Your task to perform on an android device: Add dell xps to the cart on amazon.com Image 0: 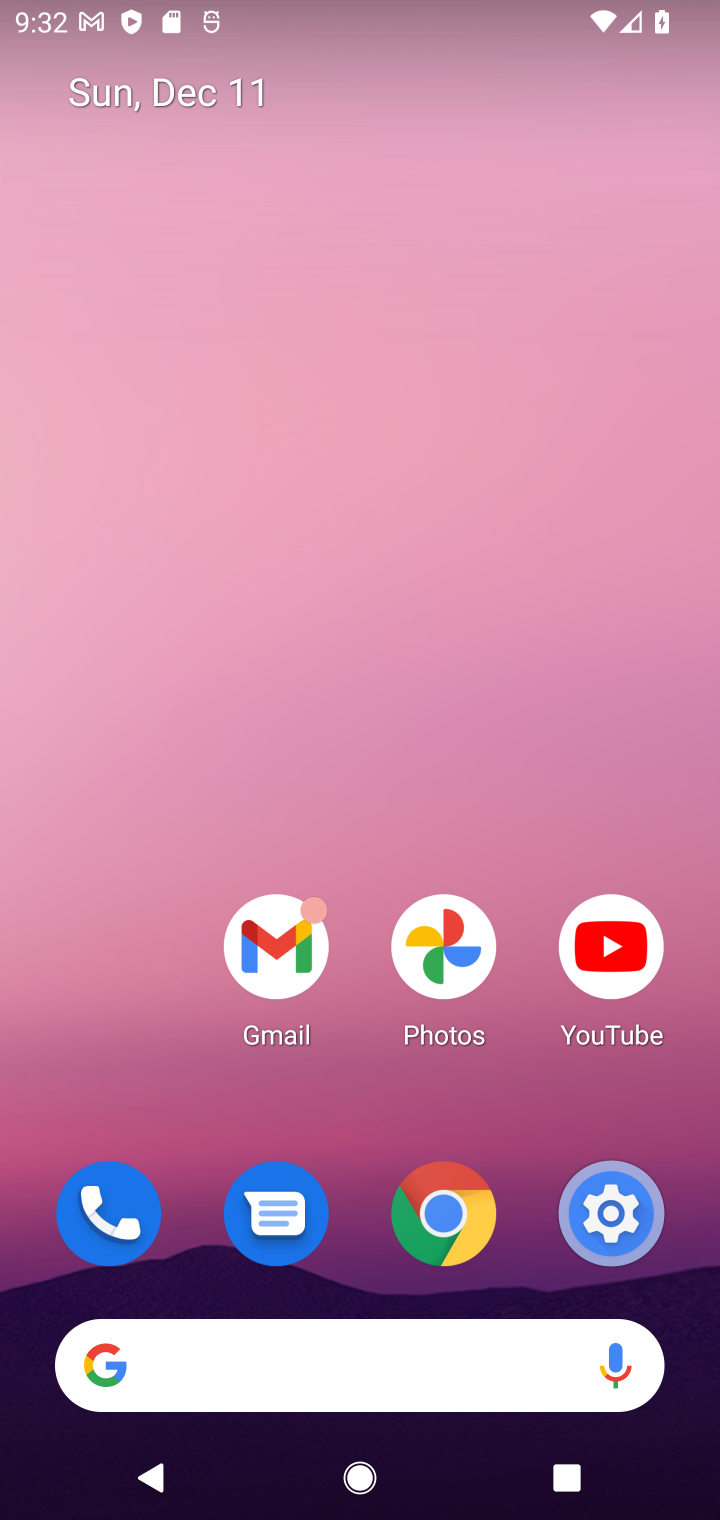
Step 0: click (365, 1385)
Your task to perform on an android device: Add dell xps to the cart on amazon.com Image 1: 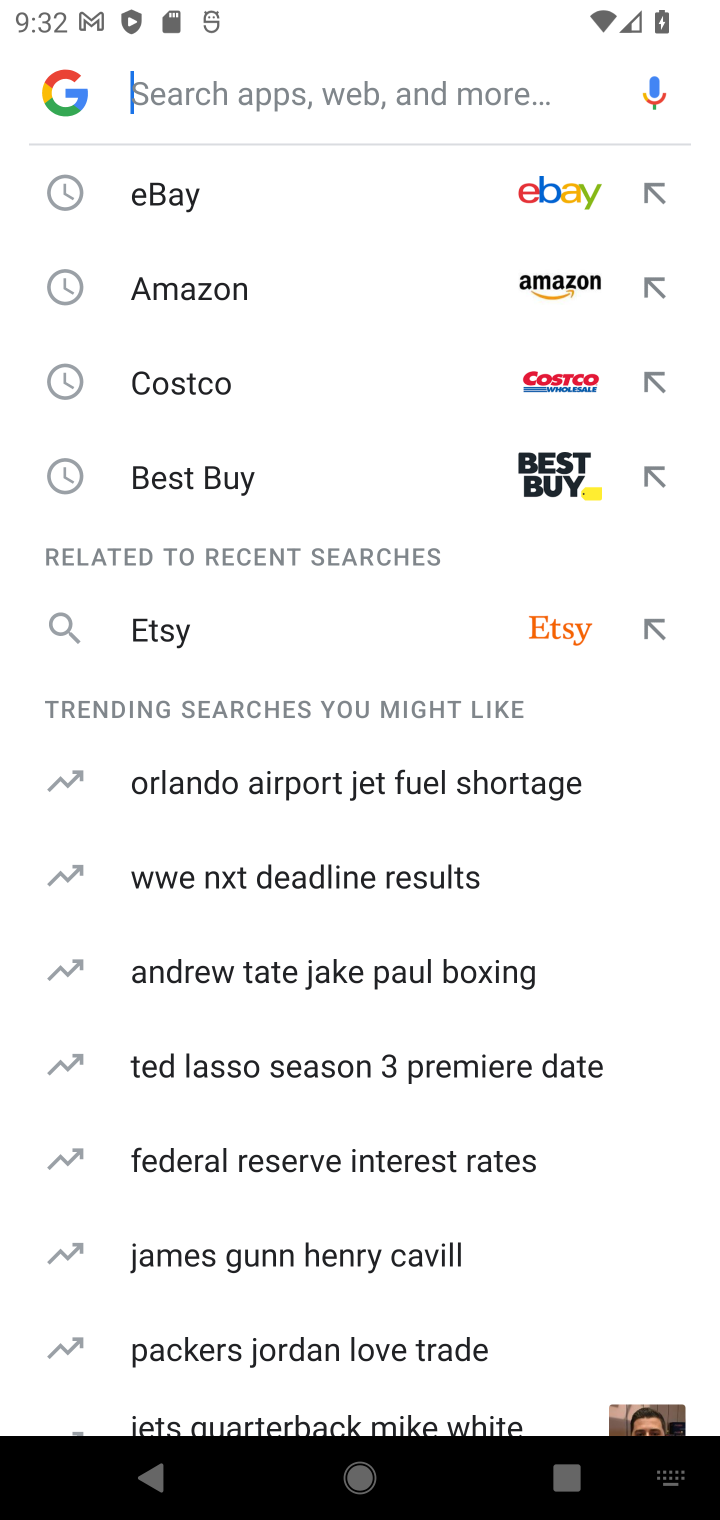
Step 1: type "amazon"
Your task to perform on an android device: Add dell xps to the cart on amazon.com Image 2: 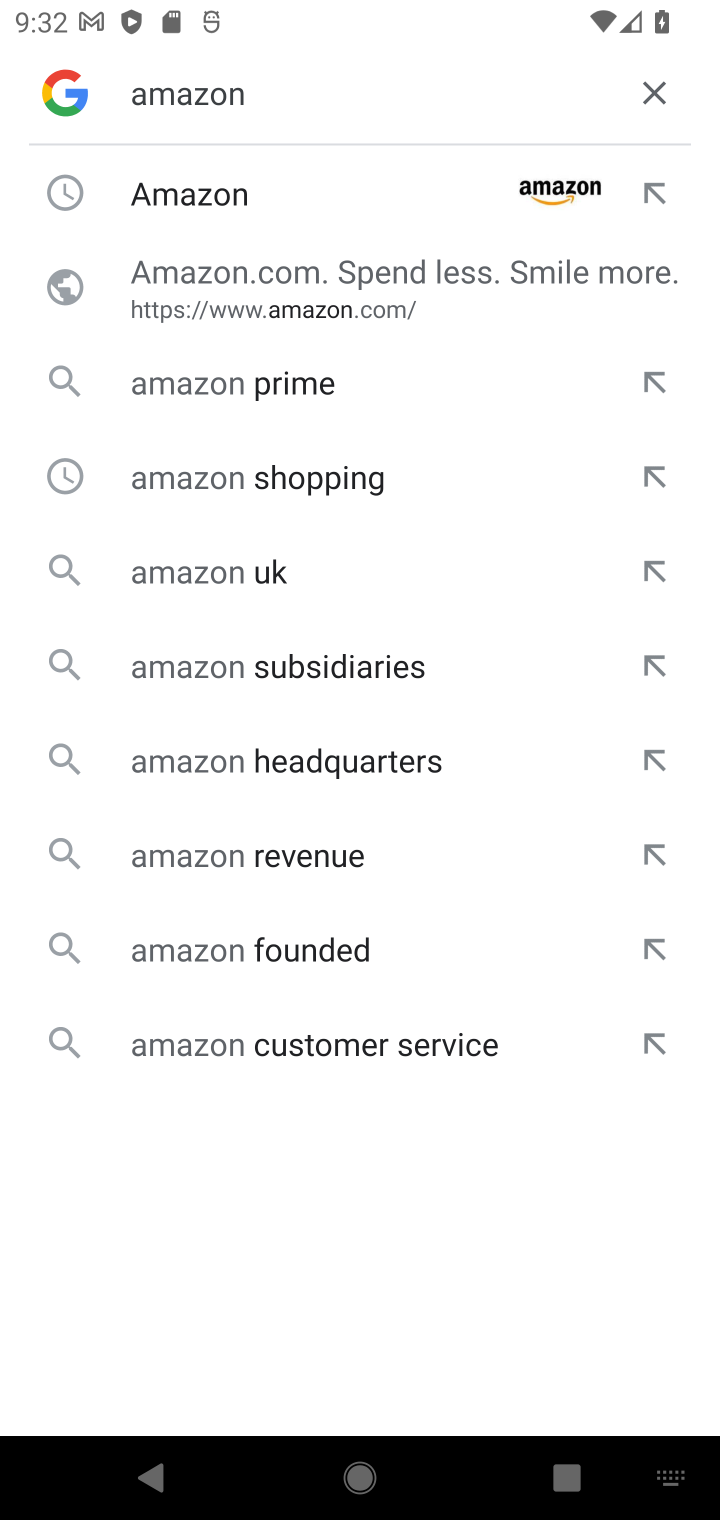
Step 2: click (344, 225)
Your task to perform on an android device: Add dell xps to the cart on amazon.com Image 3: 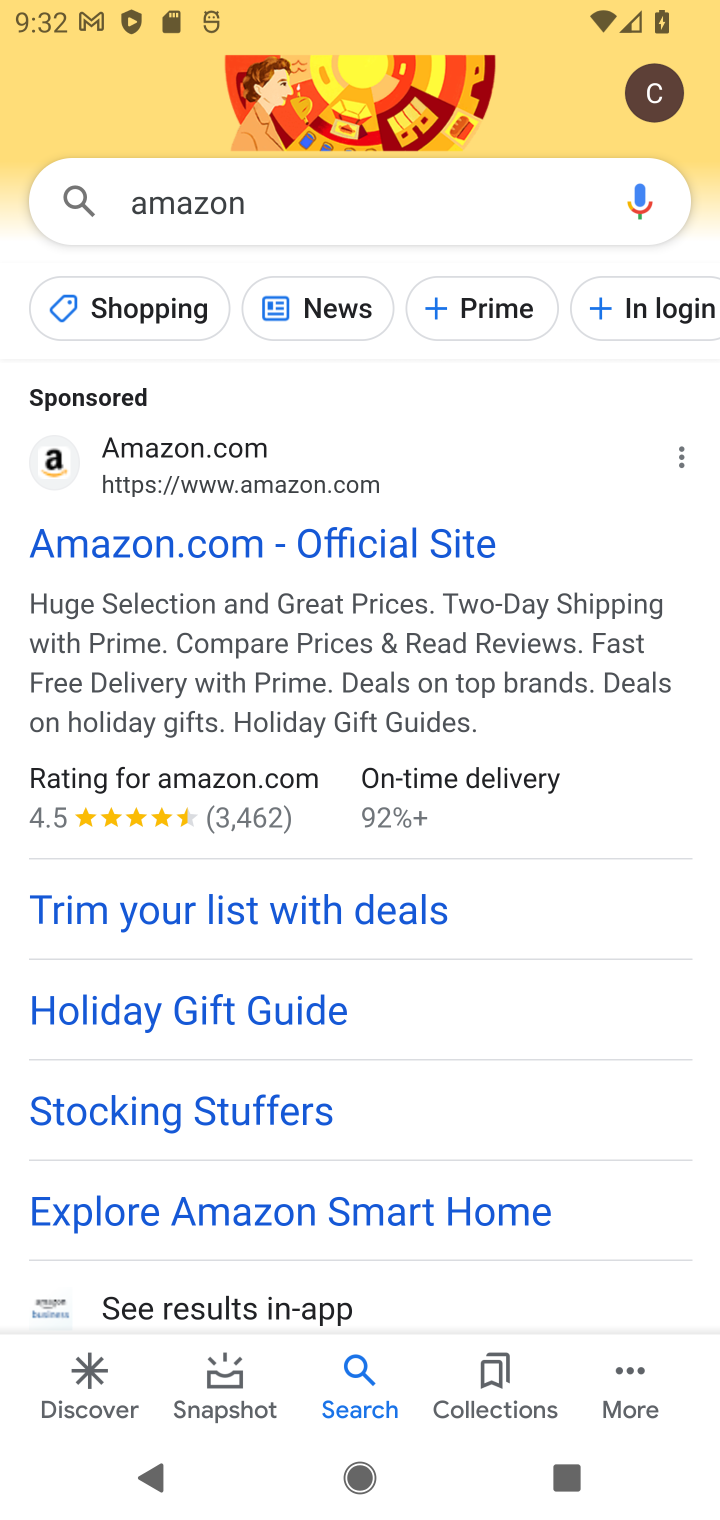
Step 3: click (307, 550)
Your task to perform on an android device: Add dell xps to the cart on amazon.com Image 4: 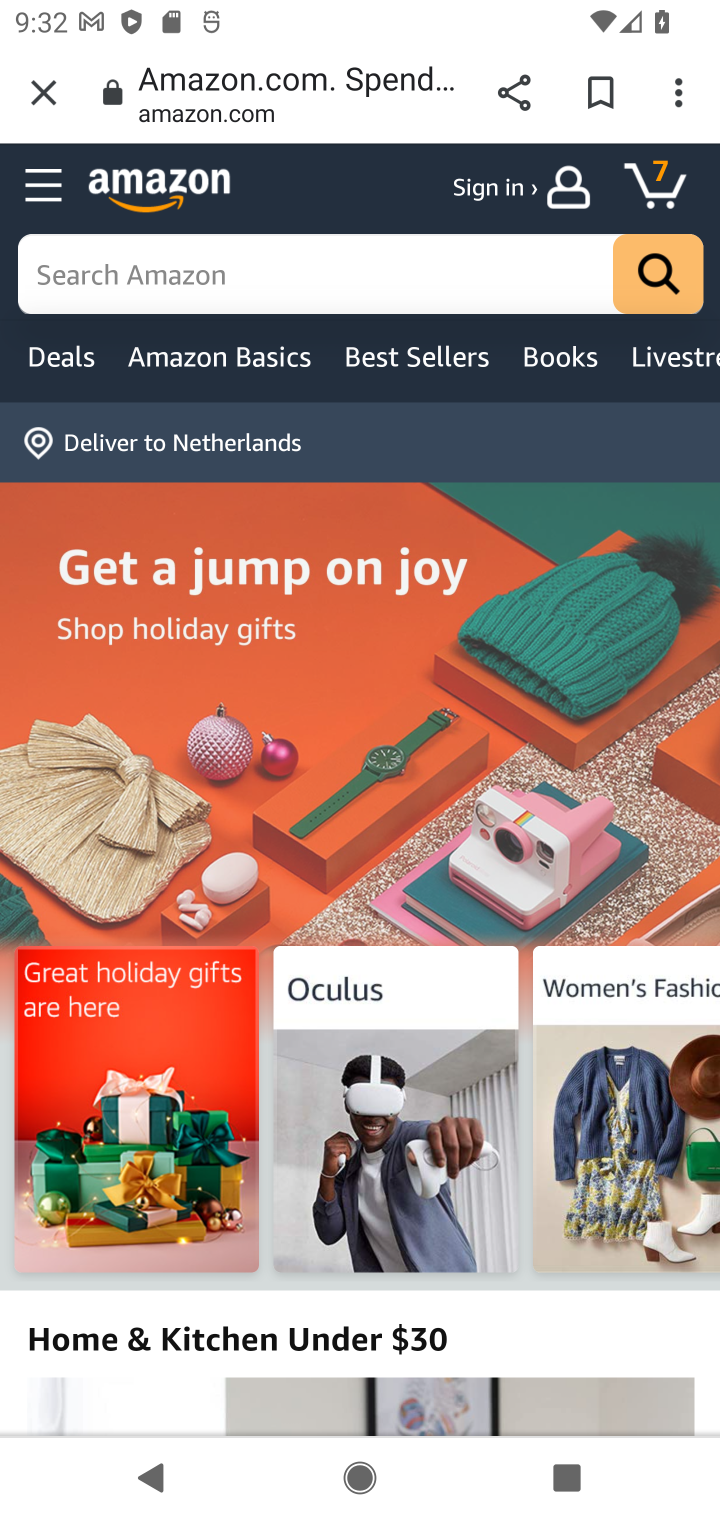
Step 4: click (121, 262)
Your task to perform on an android device: Add dell xps to the cart on amazon.com Image 5: 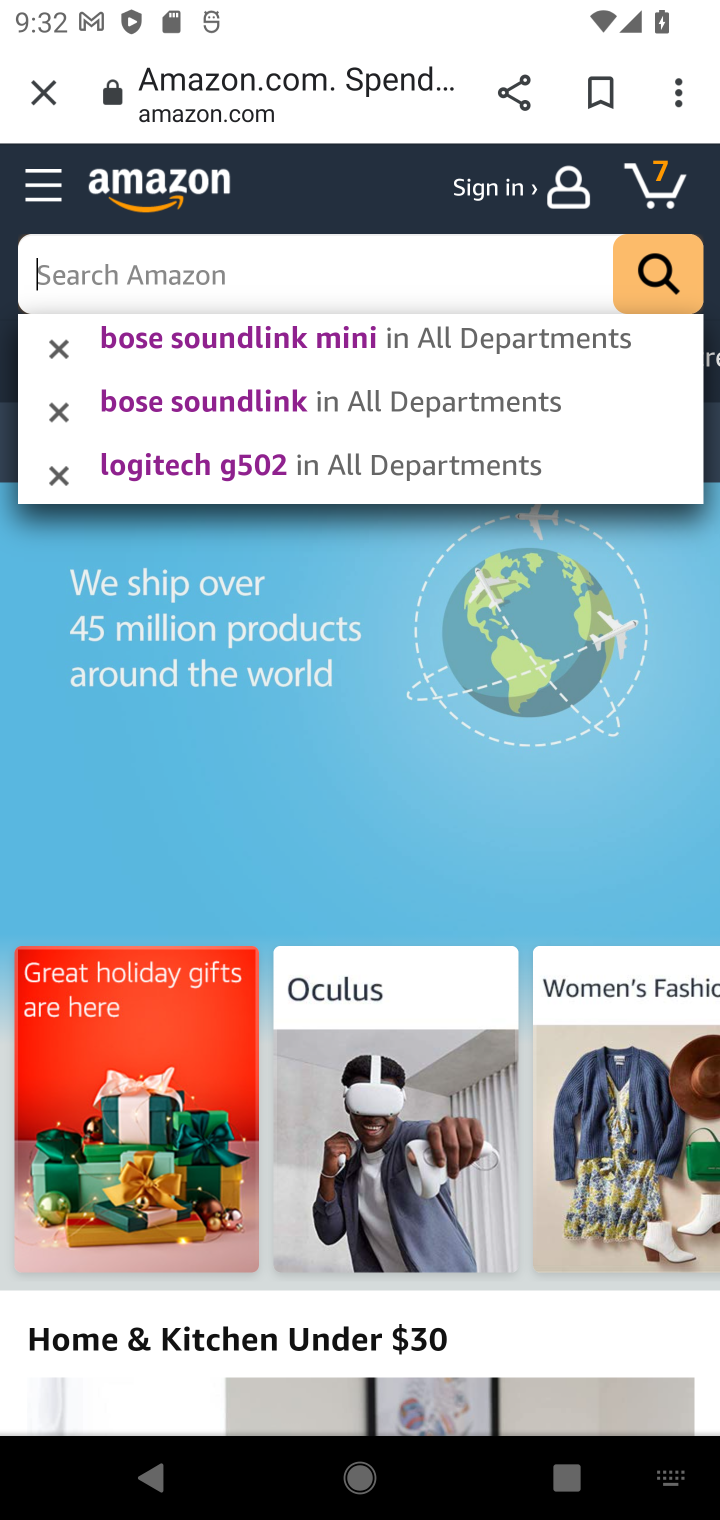
Step 5: type "dell xps"
Your task to perform on an android device: Add dell xps to the cart on amazon.com Image 6: 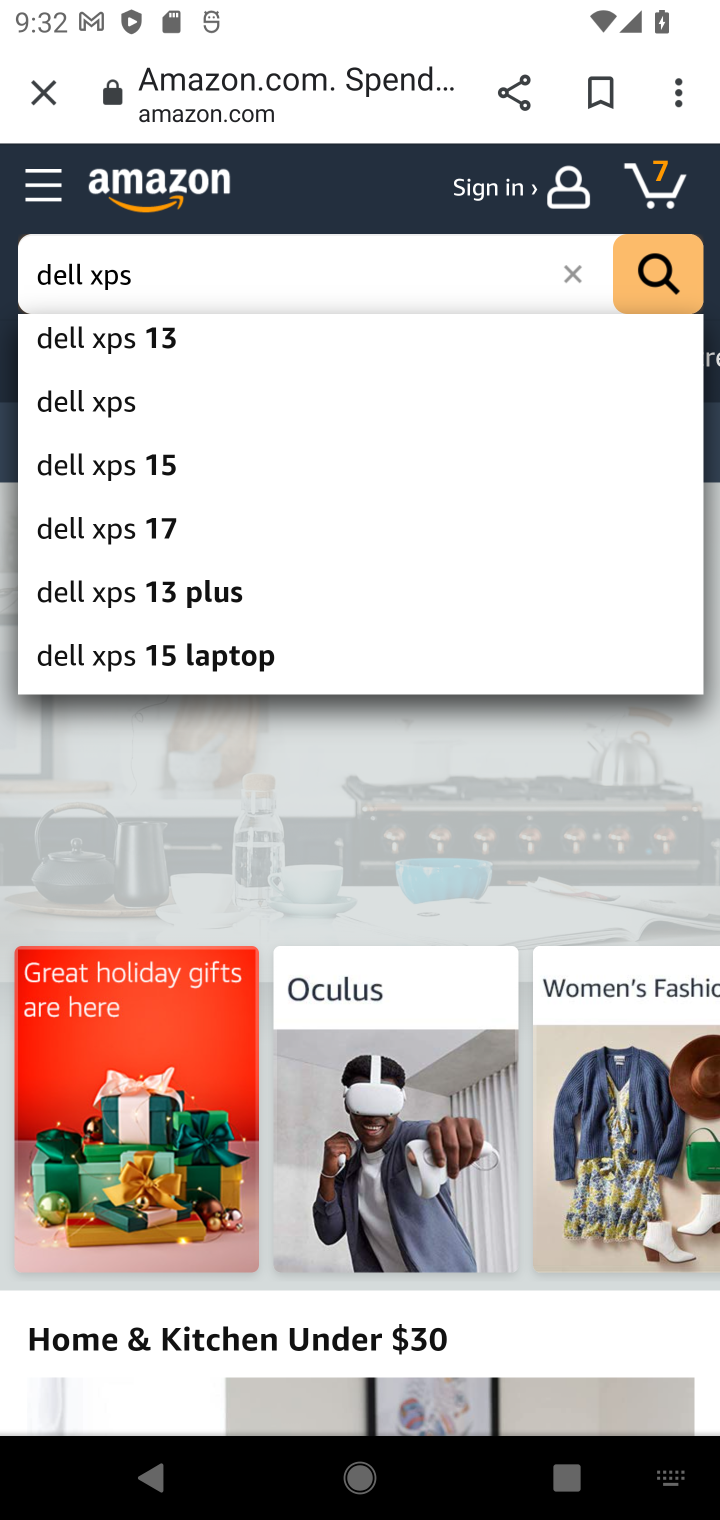
Step 6: click (162, 384)
Your task to perform on an android device: Add dell xps to the cart on amazon.com Image 7: 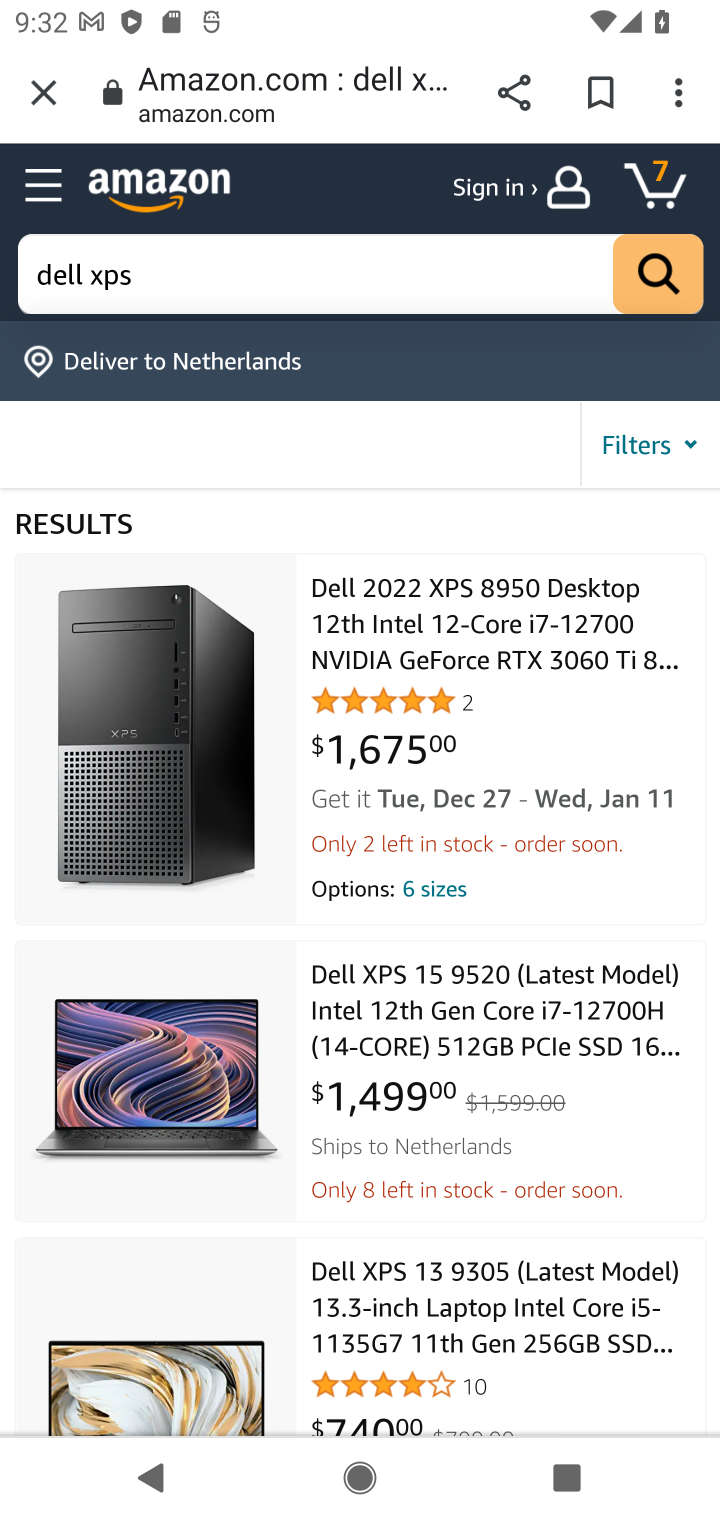
Step 7: click (417, 681)
Your task to perform on an android device: Add dell xps to the cart on amazon.com Image 8: 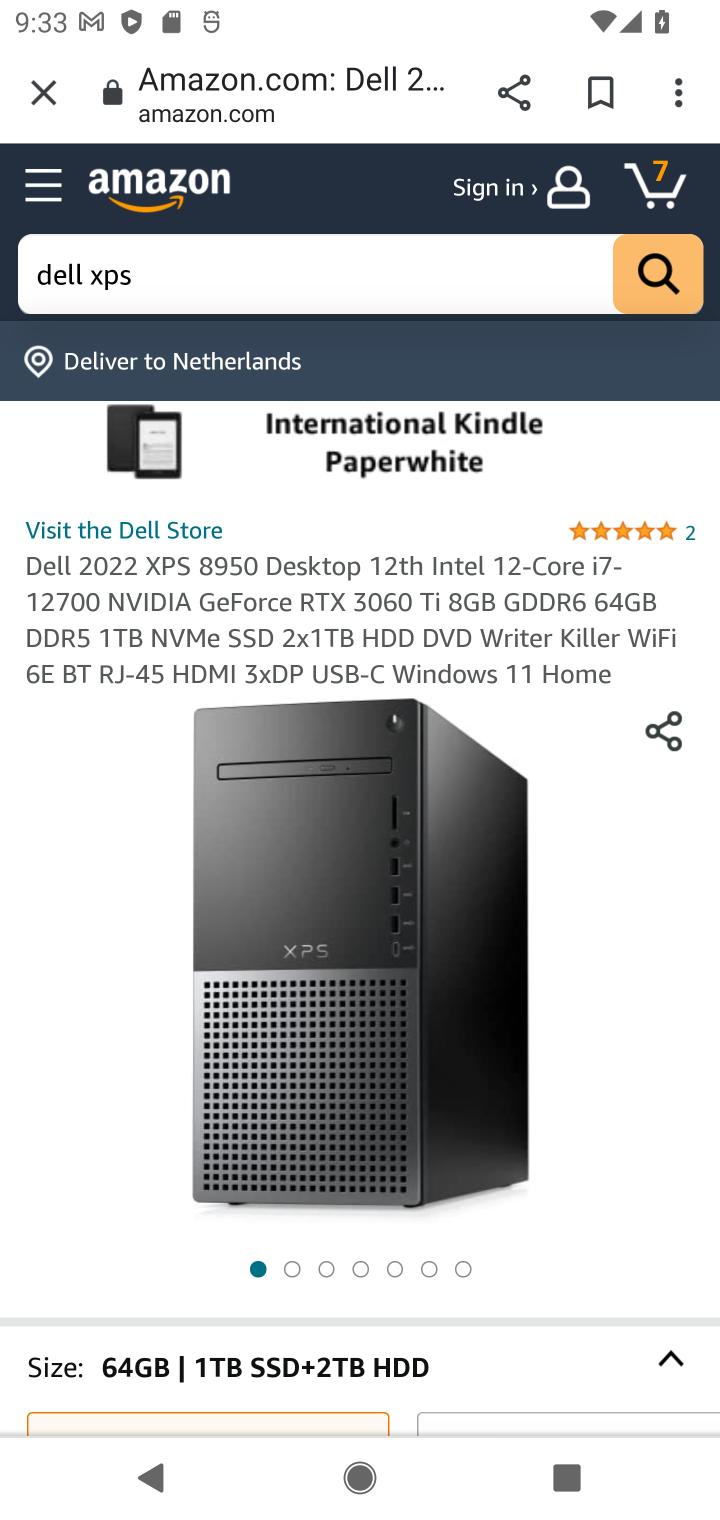
Step 8: drag from (379, 1217) to (344, 799)
Your task to perform on an android device: Add dell xps to the cart on amazon.com Image 9: 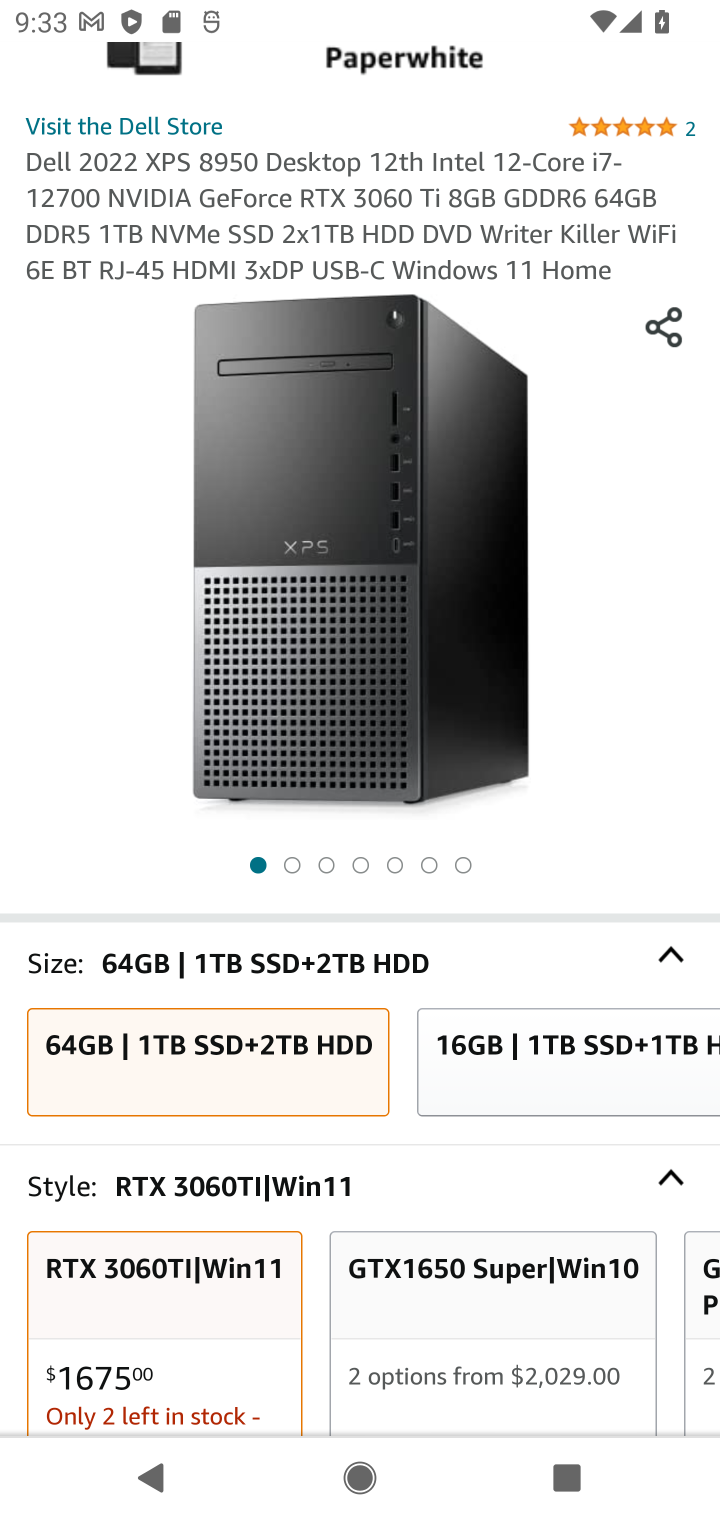
Step 9: drag from (472, 1199) to (451, 548)
Your task to perform on an android device: Add dell xps to the cart on amazon.com Image 10: 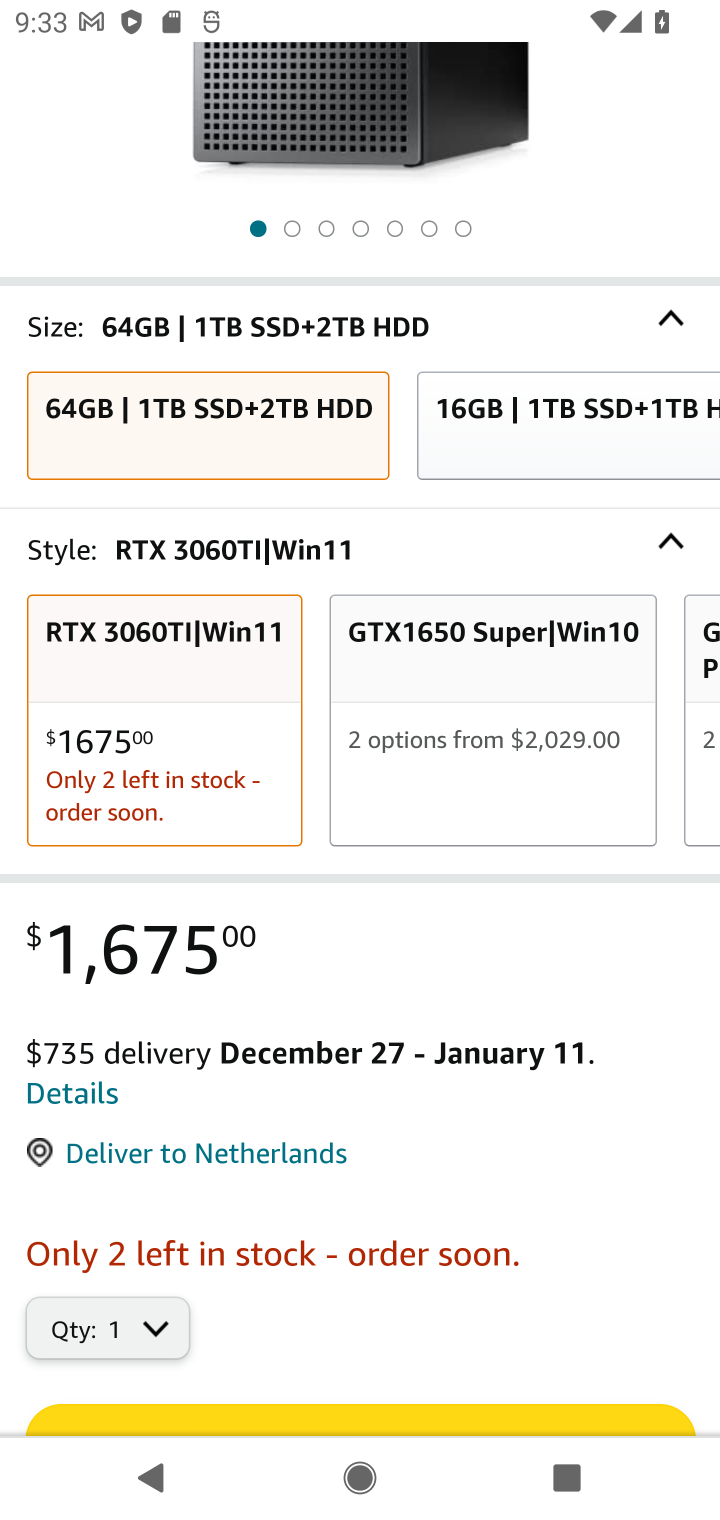
Step 10: drag from (504, 1334) to (516, 1121)
Your task to perform on an android device: Add dell xps to the cart on amazon.com Image 11: 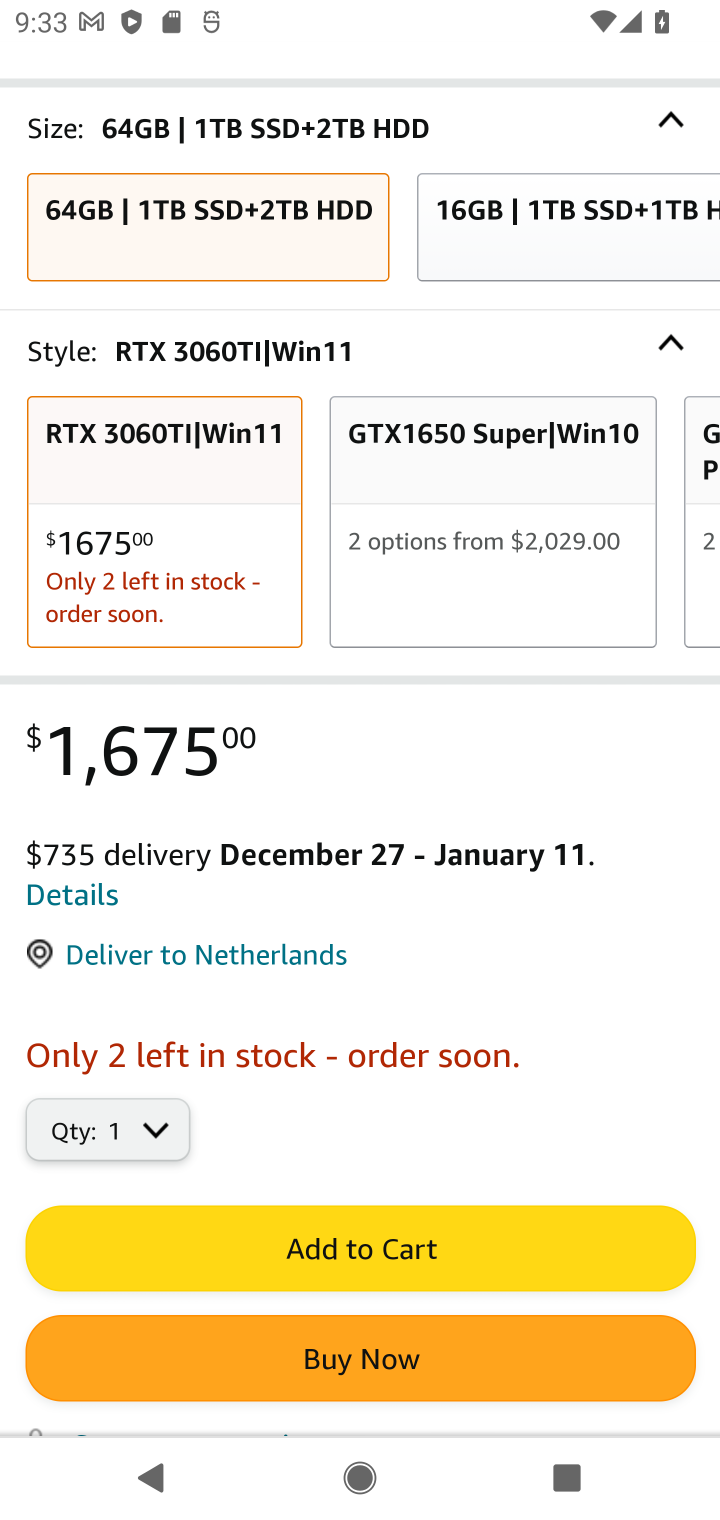
Step 11: click (481, 1274)
Your task to perform on an android device: Add dell xps to the cart on amazon.com Image 12: 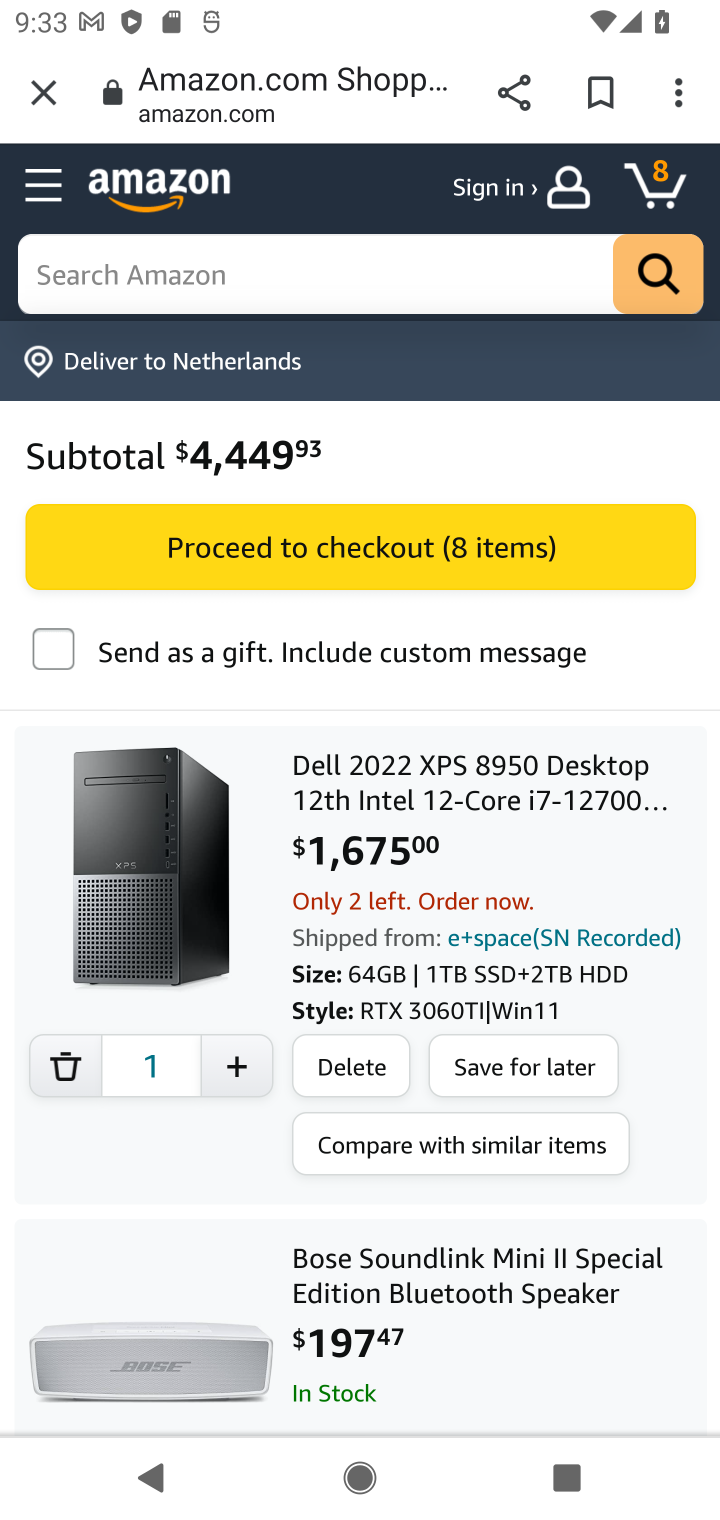
Step 12: task complete